Your task to perform on an android device: set the stopwatch Image 0: 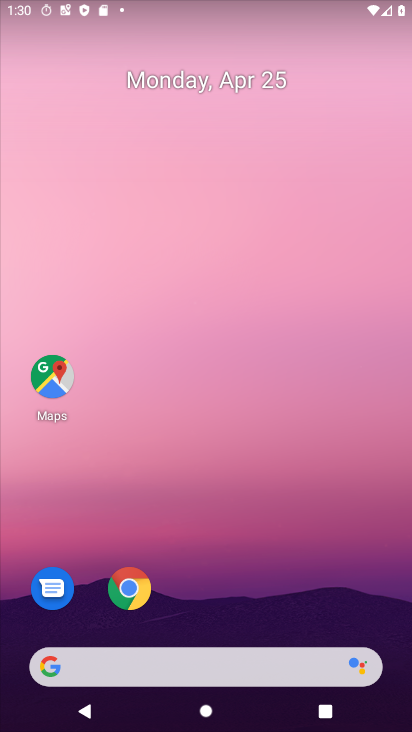
Step 0: drag from (255, 617) to (189, 187)
Your task to perform on an android device: set the stopwatch Image 1: 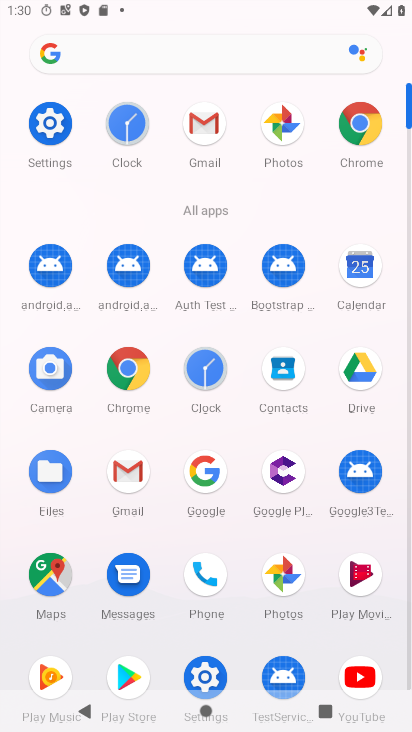
Step 1: click (214, 372)
Your task to perform on an android device: set the stopwatch Image 2: 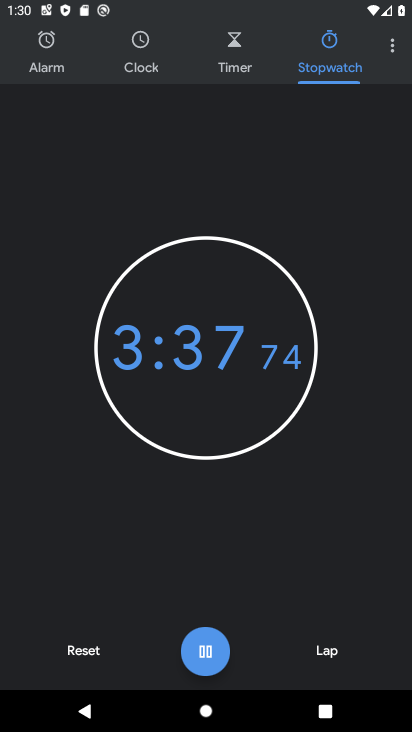
Step 2: click (219, 658)
Your task to perform on an android device: set the stopwatch Image 3: 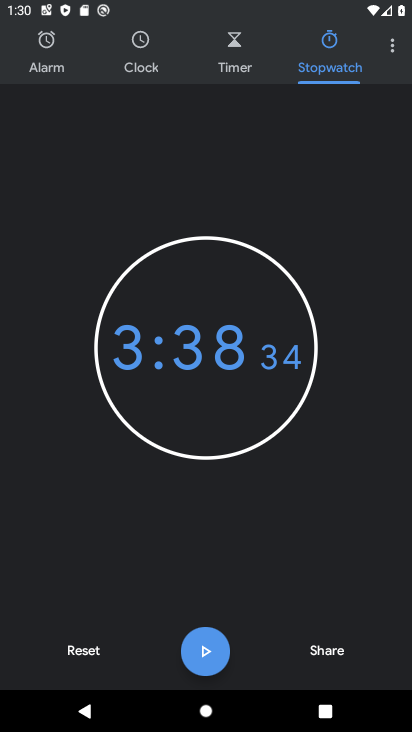
Step 3: click (91, 648)
Your task to perform on an android device: set the stopwatch Image 4: 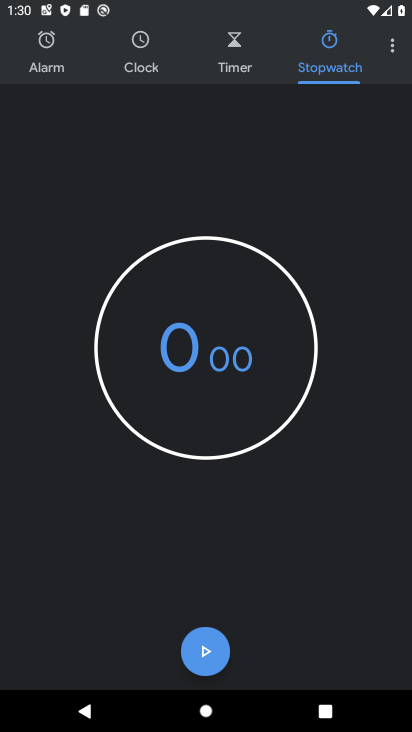
Step 4: click (214, 649)
Your task to perform on an android device: set the stopwatch Image 5: 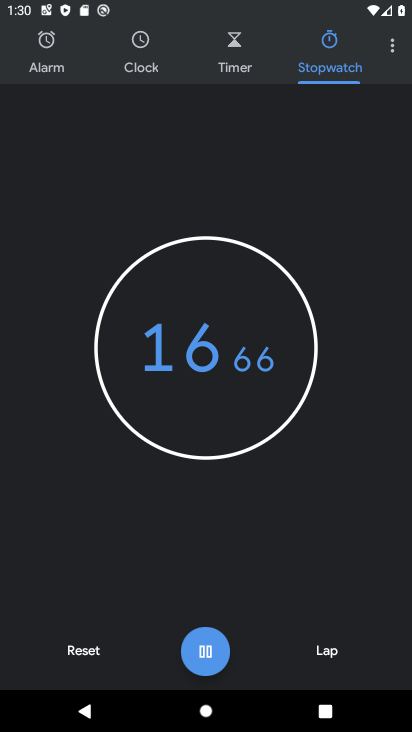
Step 5: task complete